Your task to perform on an android device: turn on sleep mode Image 0: 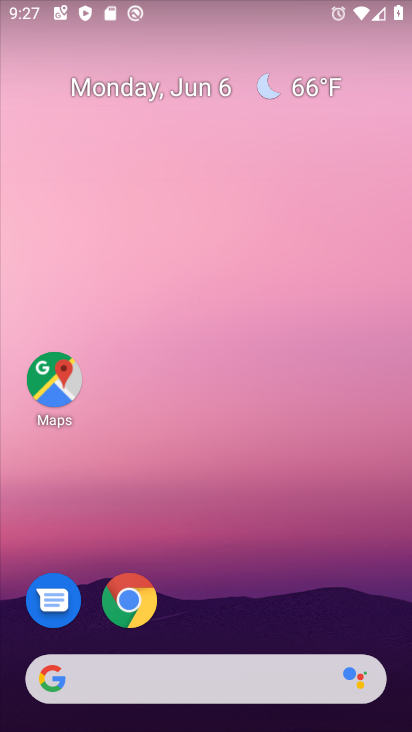
Step 0: drag from (44, 603) to (246, 195)
Your task to perform on an android device: turn on sleep mode Image 1: 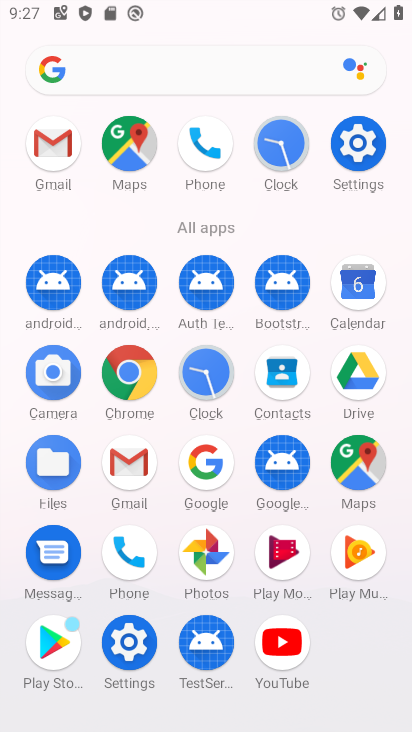
Step 1: click (367, 123)
Your task to perform on an android device: turn on sleep mode Image 2: 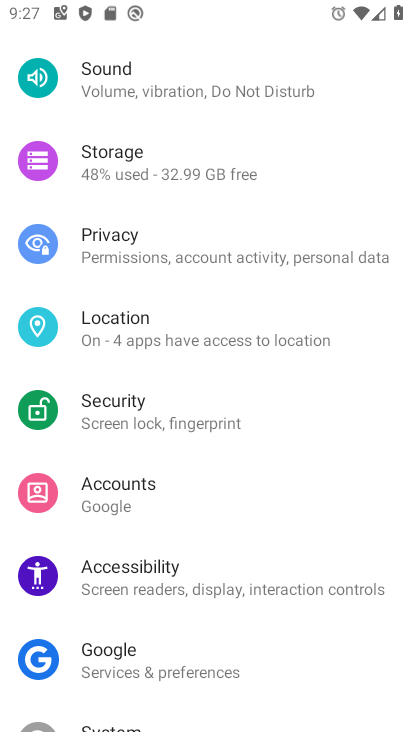
Step 2: click (103, 336)
Your task to perform on an android device: turn on sleep mode Image 3: 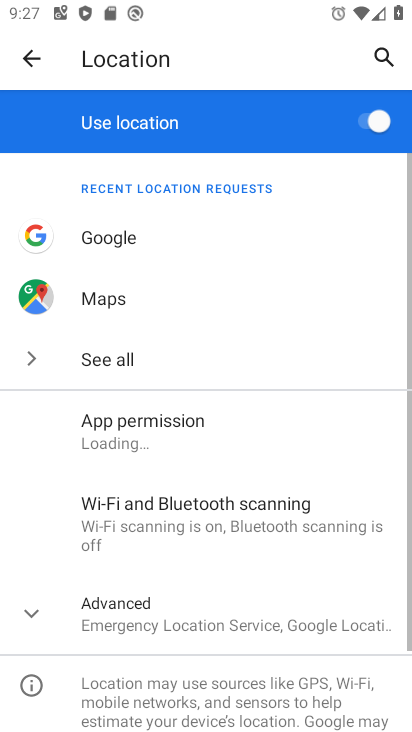
Step 3: task complete